Your task to perform on an android device: Go to Yahoo.com Image 0: 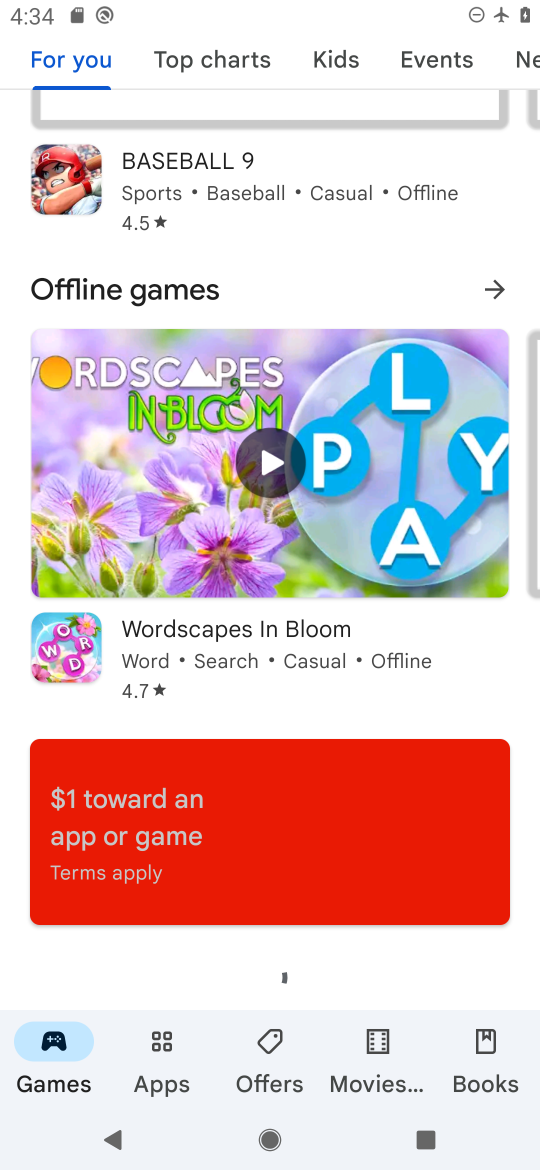
Step 0: press home button
Your task to perform on an android device: Go to Yahoo.com Image 1: 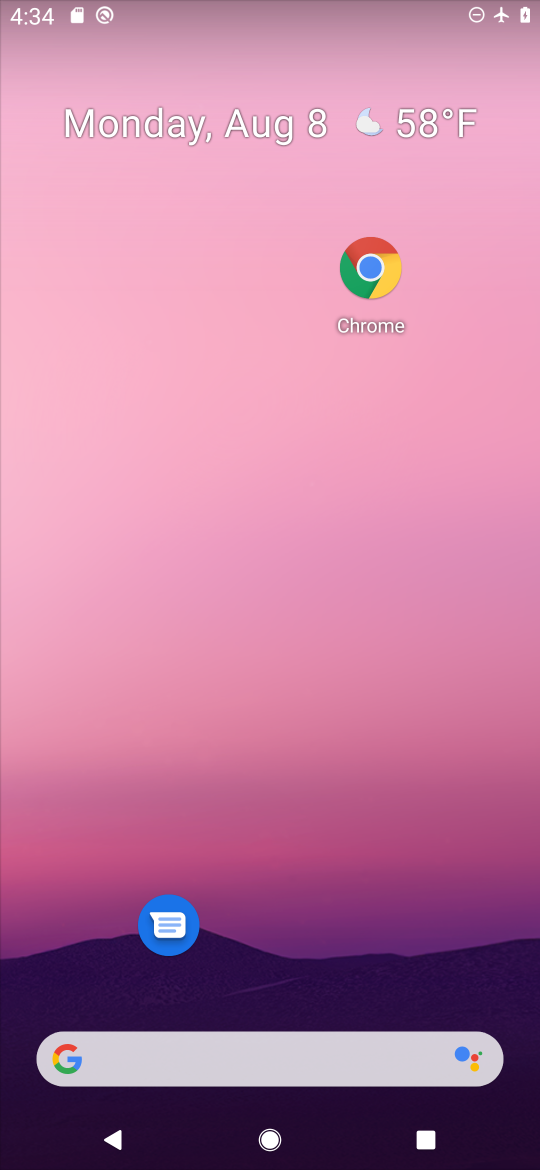
Step 1: drag from (266, 499) to (233, 140)
Your task to perform on an android device: Go to Yahoo.com Image 2: 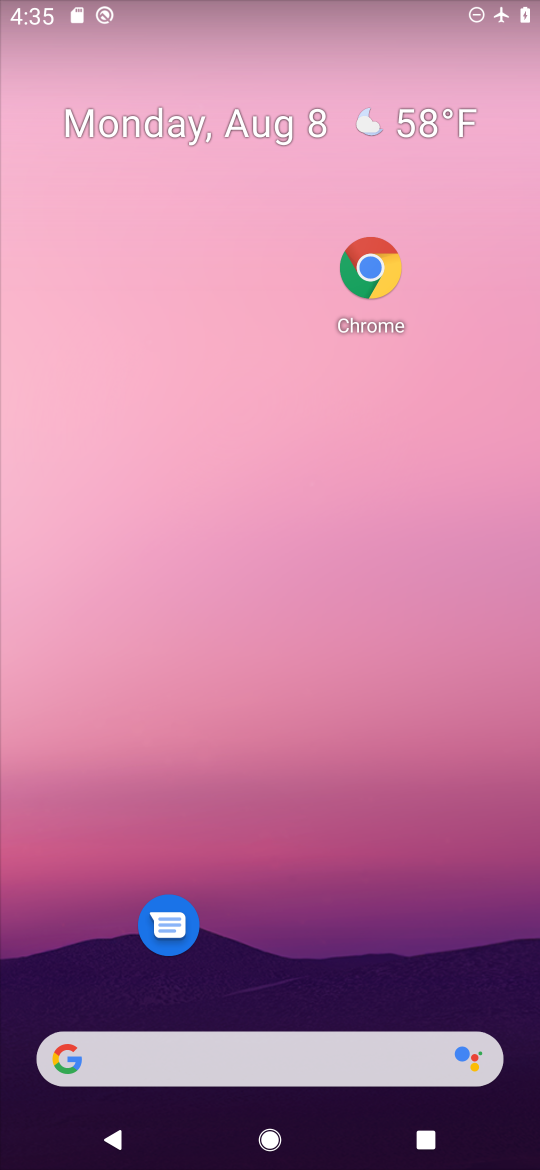
Step 2: drag from (305, 1029) to (288, 228)
Your task to perform on an android device: Go to Yahoo.com Image 3: 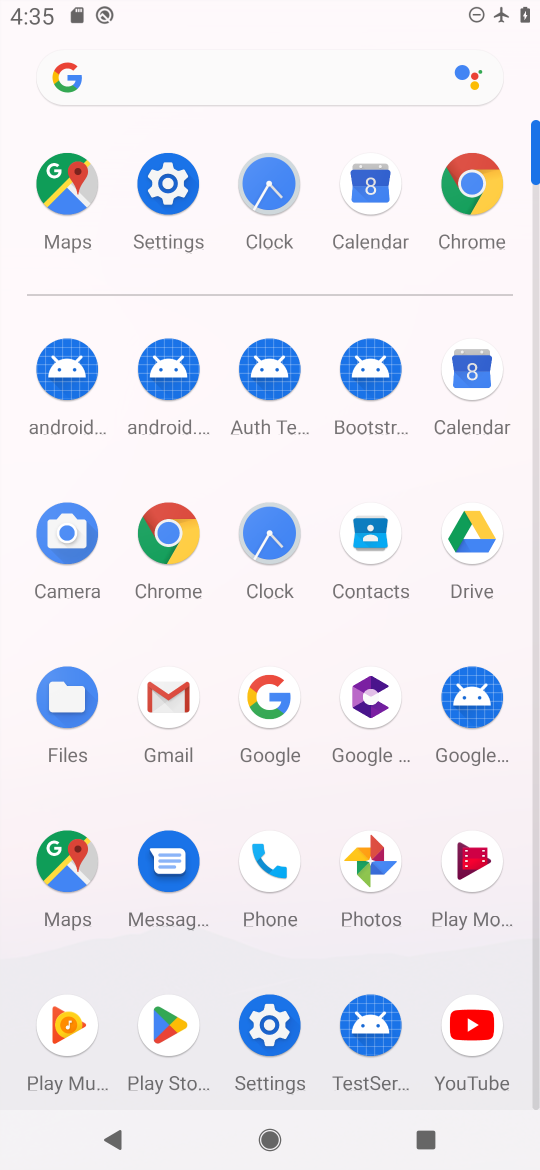
Step 3: click (472, 184)
Your task to perform on an android device: Go to Yahoo.com Image 4: 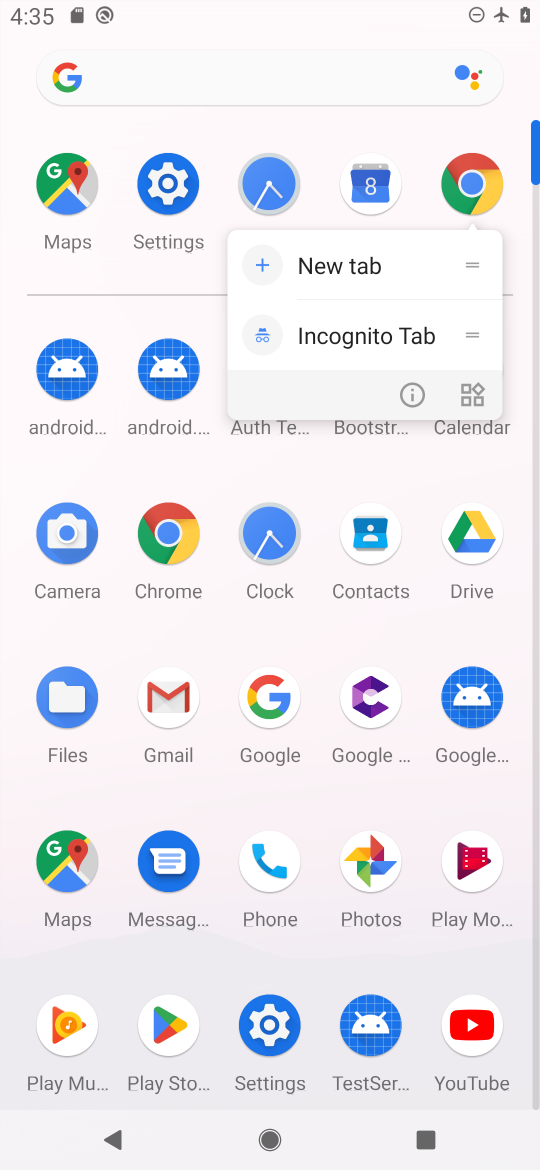
Step 4: click (470, 172)
Your task to perform on an android device: Go to Yahoo.com Image 5: 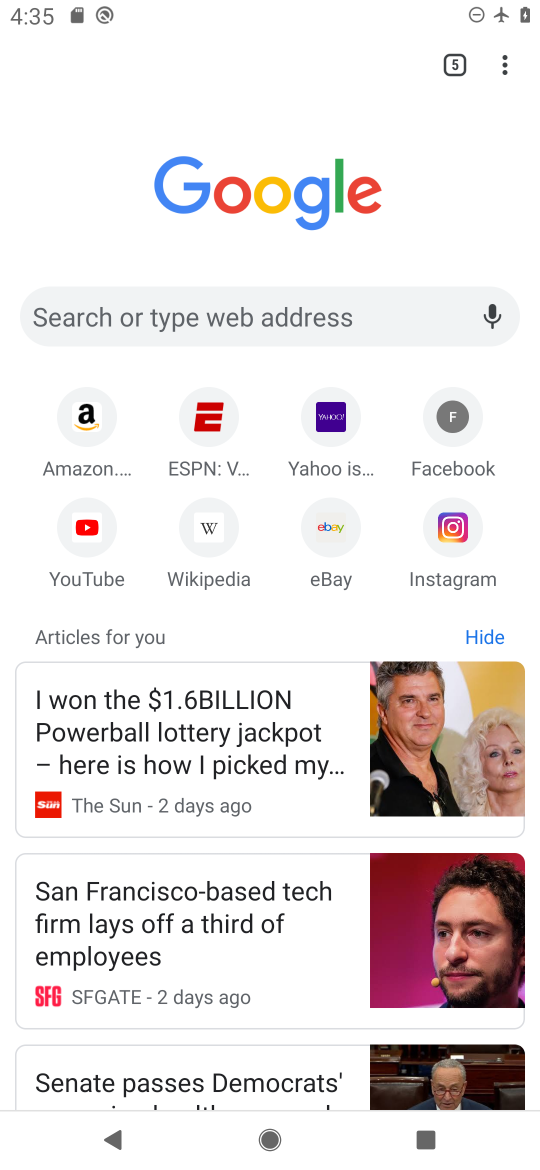
Step 5: click (334, 431)
Your task to perform on an android device: Go to Yahoo.com Image 6: 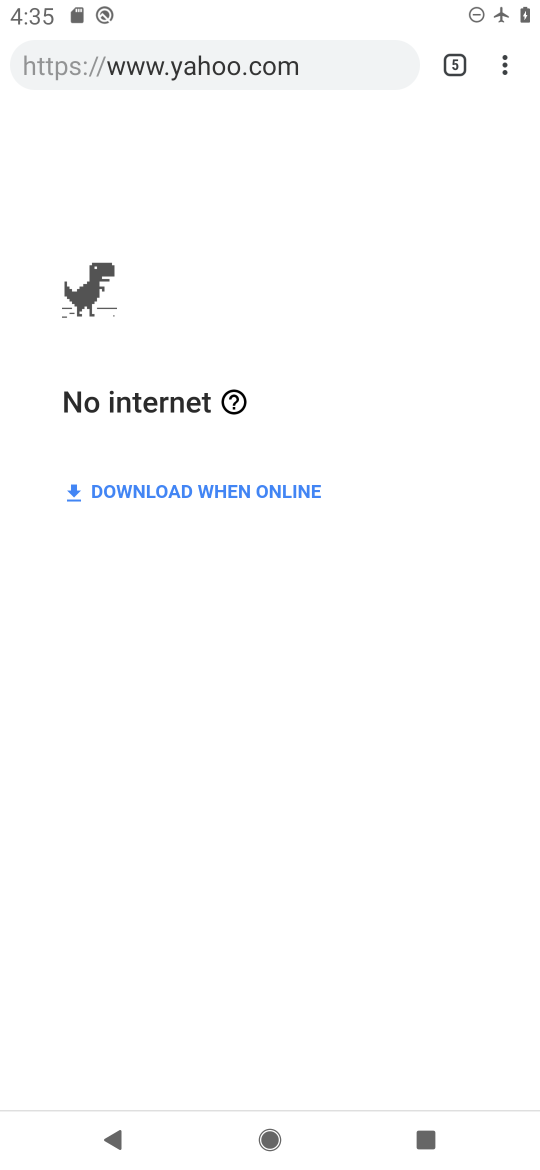
Step 6: task complete